Your task to perform on an android device: What's on my calendar tomorrow? Image 0: 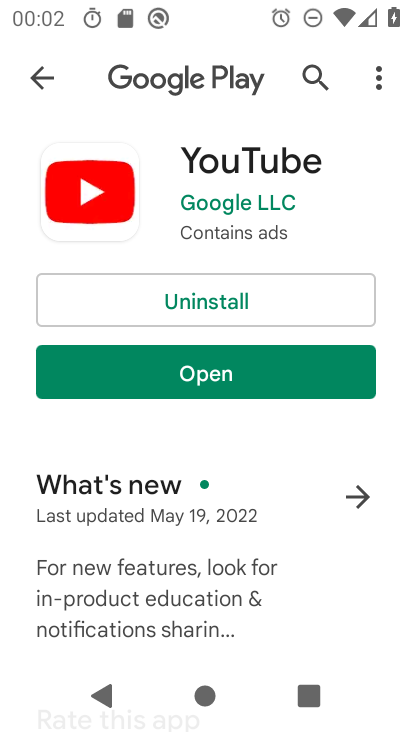
Step 0: press home button
Your task to perform on an android device: What's on my calendar tomorrow? Image 1: 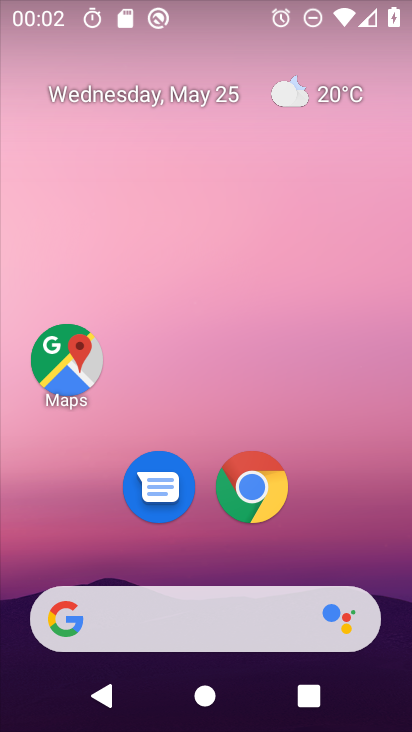
Step 1: drag from (341, 575) to (332, 7)
Your task to perform on an android device: What's on my calendar tomorrow? Image 2: 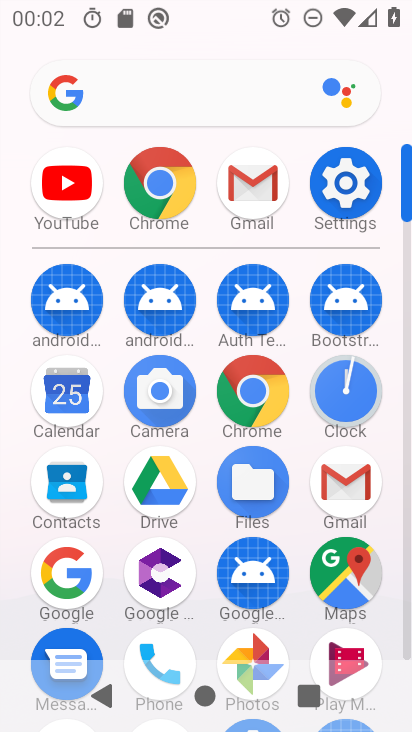
Step 2: click (49, 406)
Your task to perform on an android device: What's on my calendar tomorrow? Image 3: 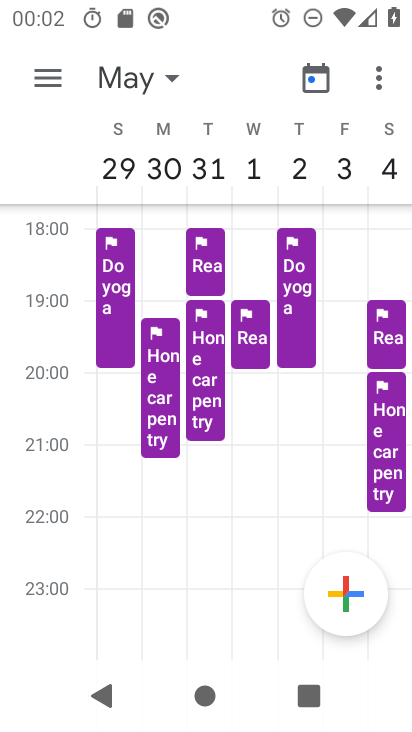
Step 3: click (32, 75)
Your task to perform on an android device: What's on my calendar tomorrow? Image 4: 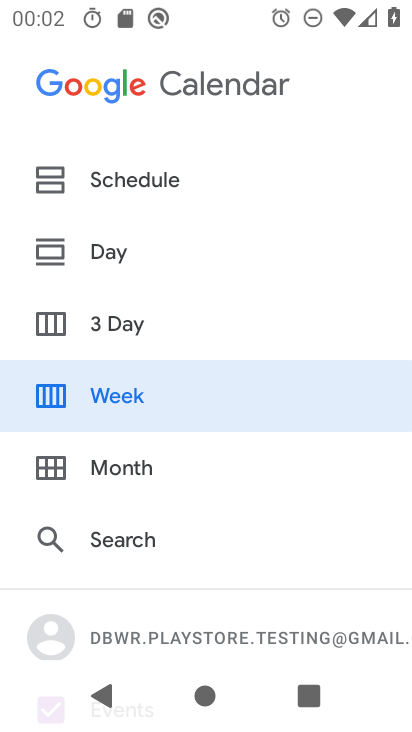
Step 4: click (102, 183)
Your task to perform on an android device: What's on my calendar tomorrow? Image 5: 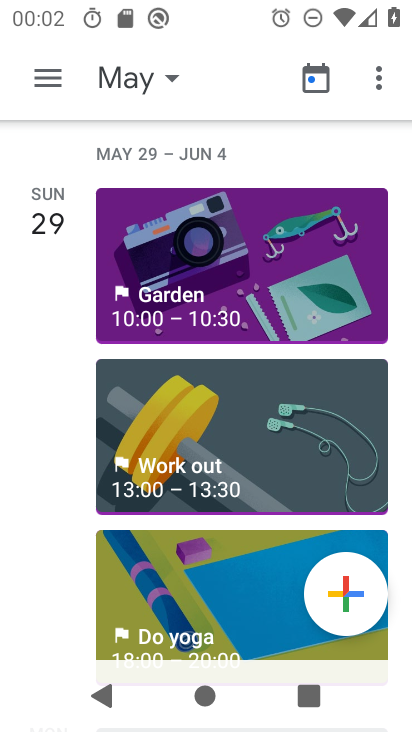
Step 5: click (170, 81)
Your task to perform on an android device: What's on my calendar tomorrow? Image 6: 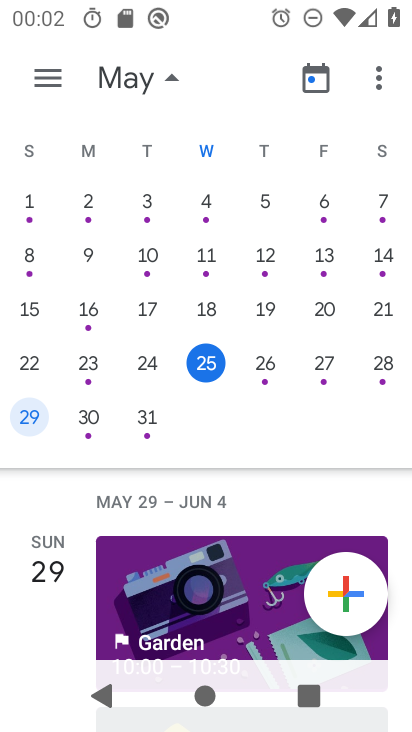
Step 6: click (270, 358)
Your task to perform on an android device: What's on my calendar tomorrow? Image 7: 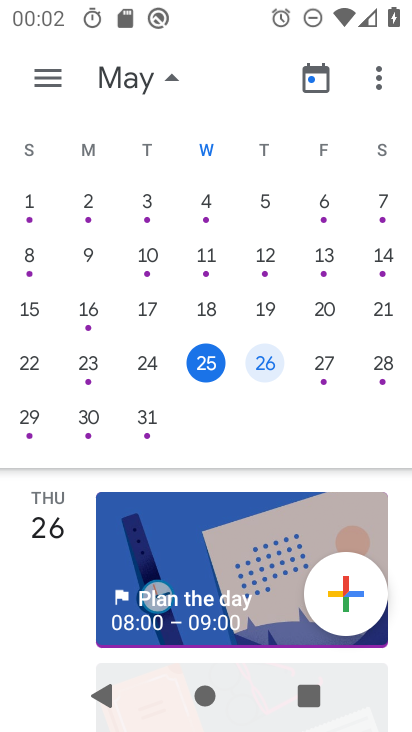
Step 7: drag from (151, 475) to (162, 114)
Your task to perform on an android device: What's on my calendar tomorrow? Image 8: 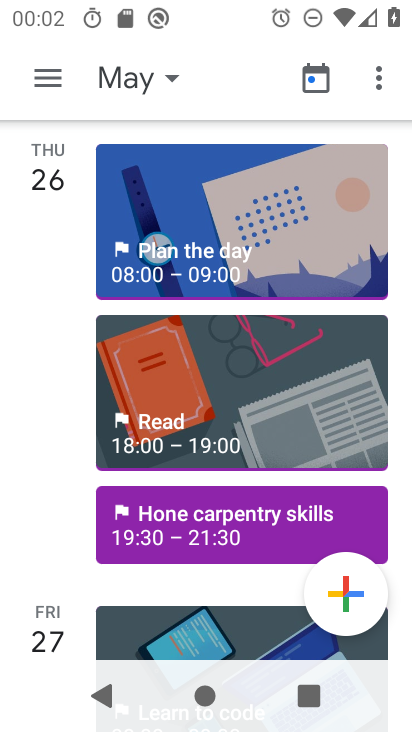
Step 8: click (186, 518)
Your task to perform on an android device: What's on my calendar tomorrow? Image 9: 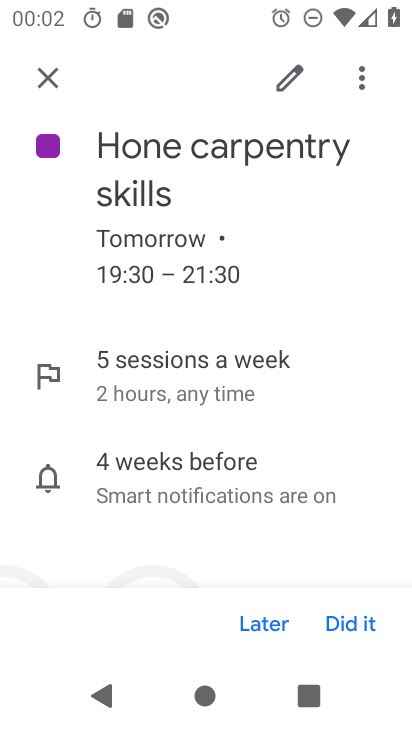
Step 9: task complete